Your task to perform on an android device: Open CNN.com Image 0: 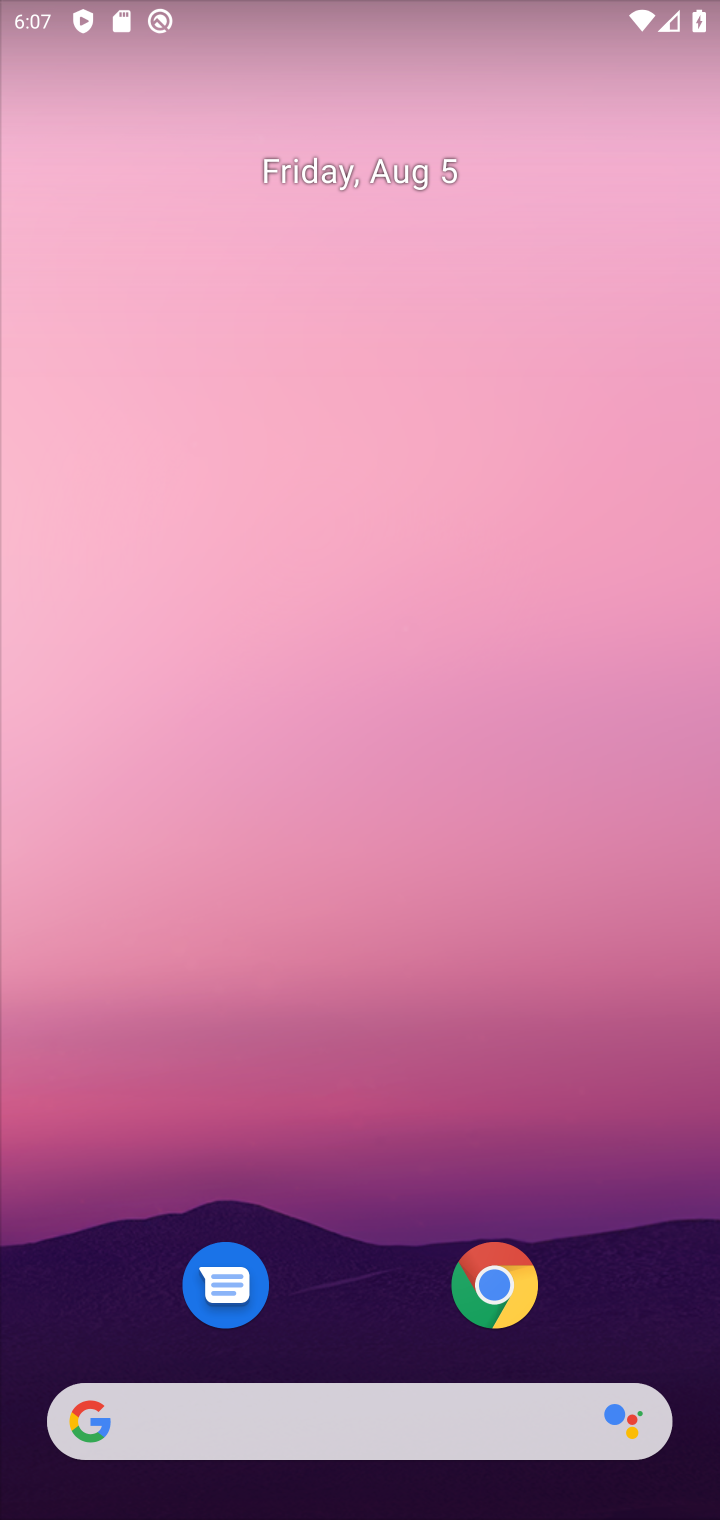
Step 0: click (485, 1288)
Your task to perform on an android device: Open CNN.com Image 1: 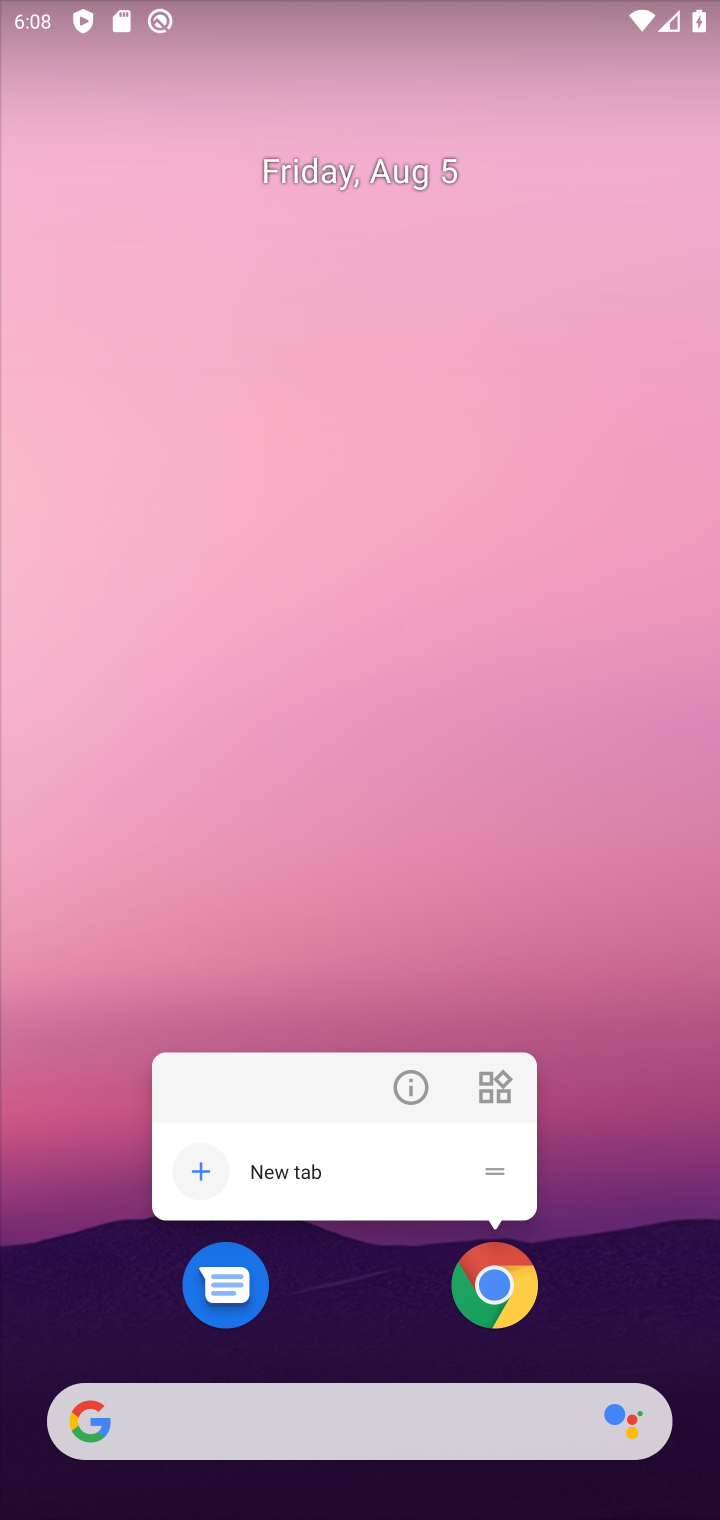
Step 1: click (481, 1293)
Your task to perform on an android device: Open CNN.com Image 2: 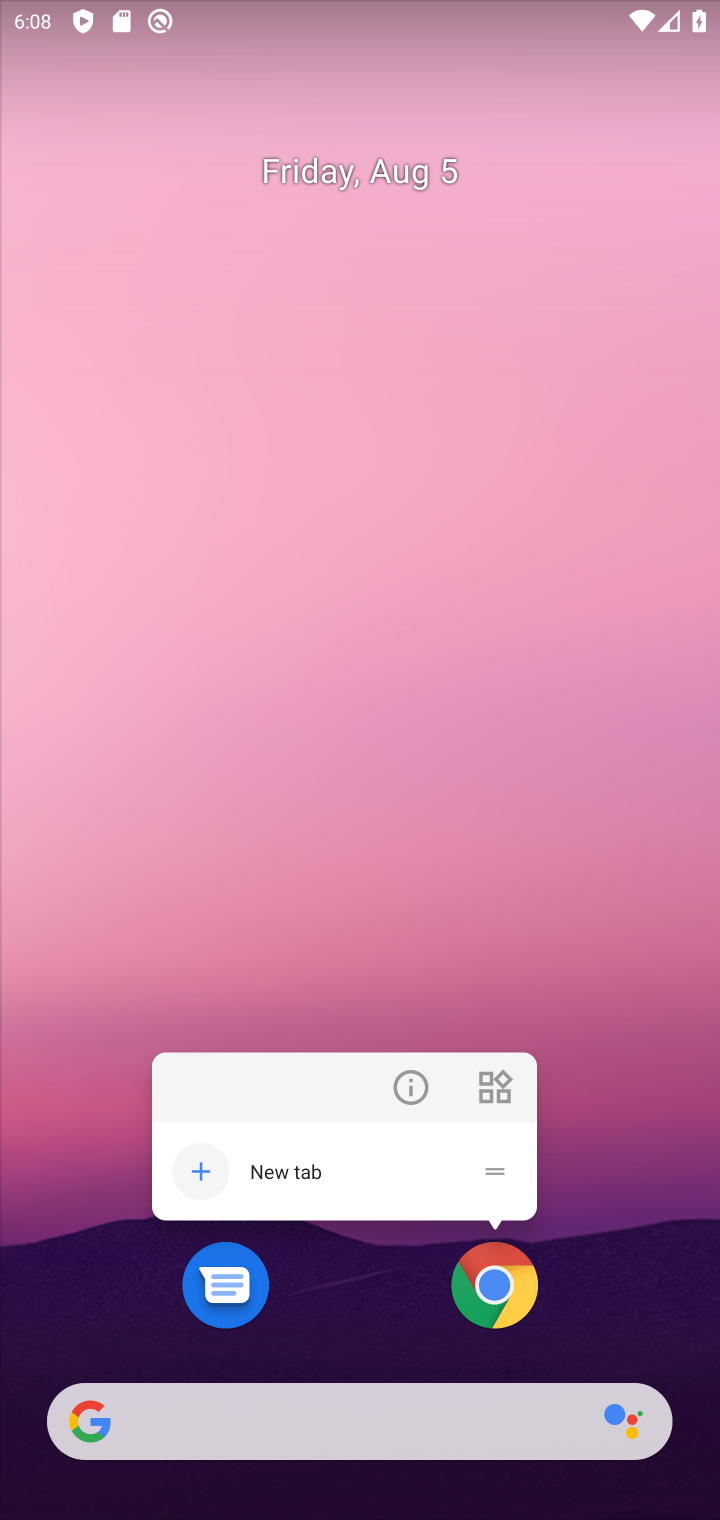
Step 2: click (481, 1293)
Your task to perform on an android device: Open CNN.com Image 3: 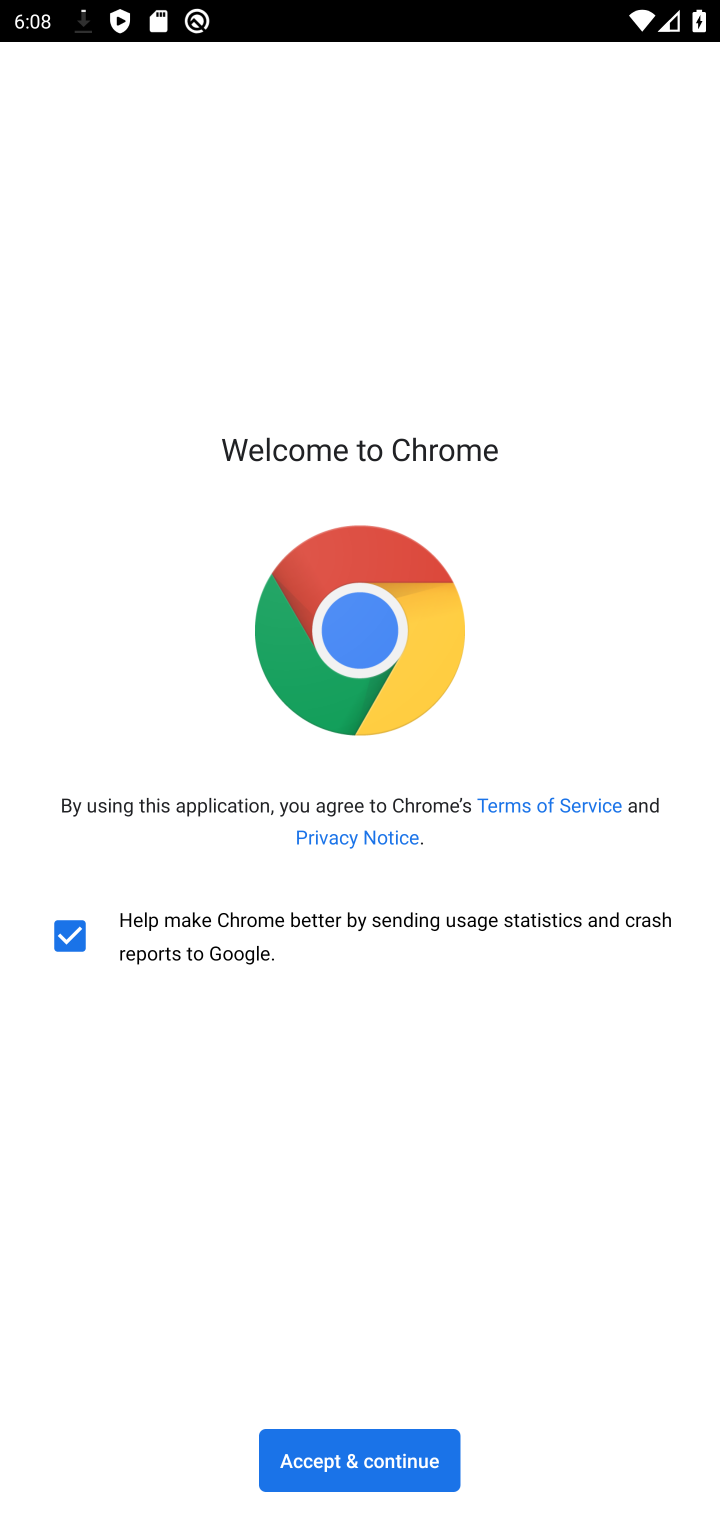
Step 3: click (367, 1463)
Your task to perform on an android device: Open CNN.com Image 4: 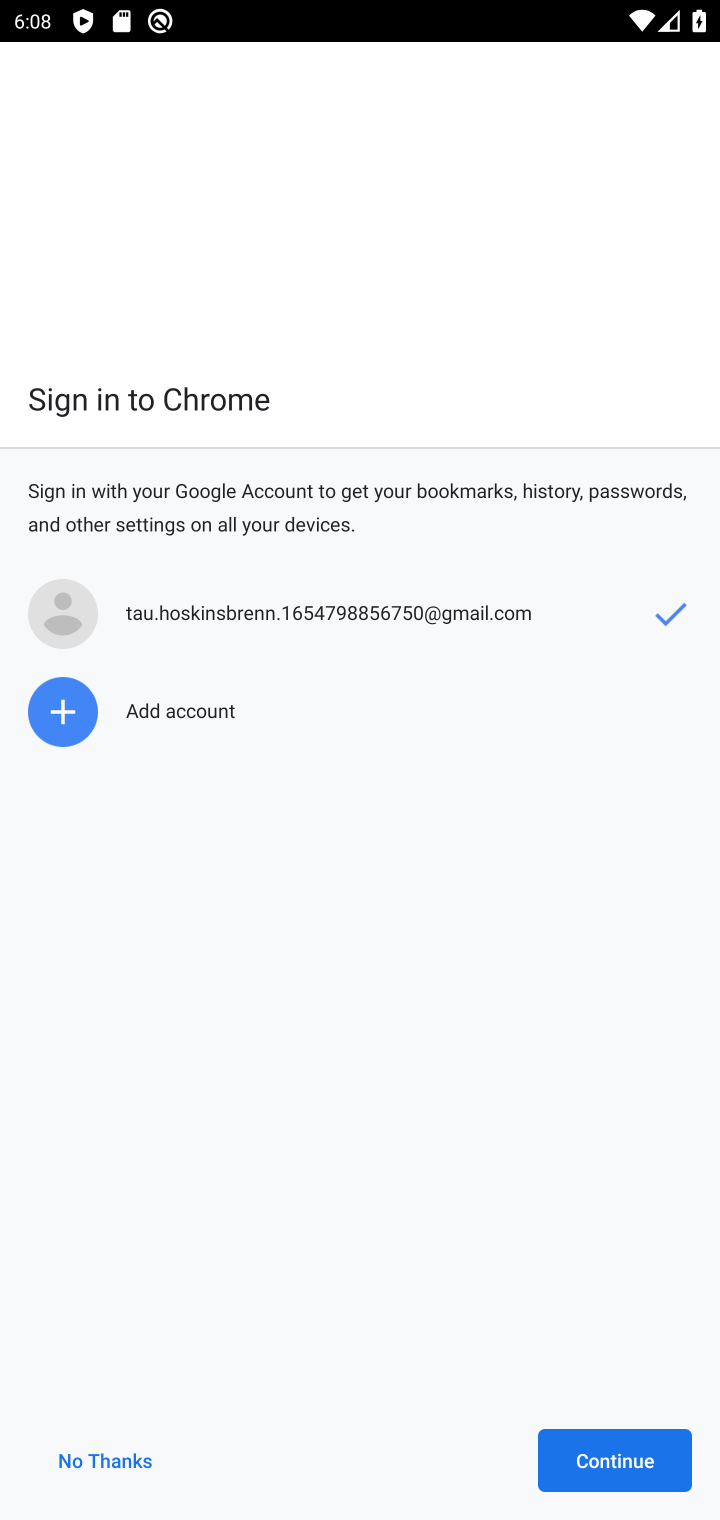
Step 4: click (605, 1470)
Your task to perform on an android device: Open CNN.com Image 5: 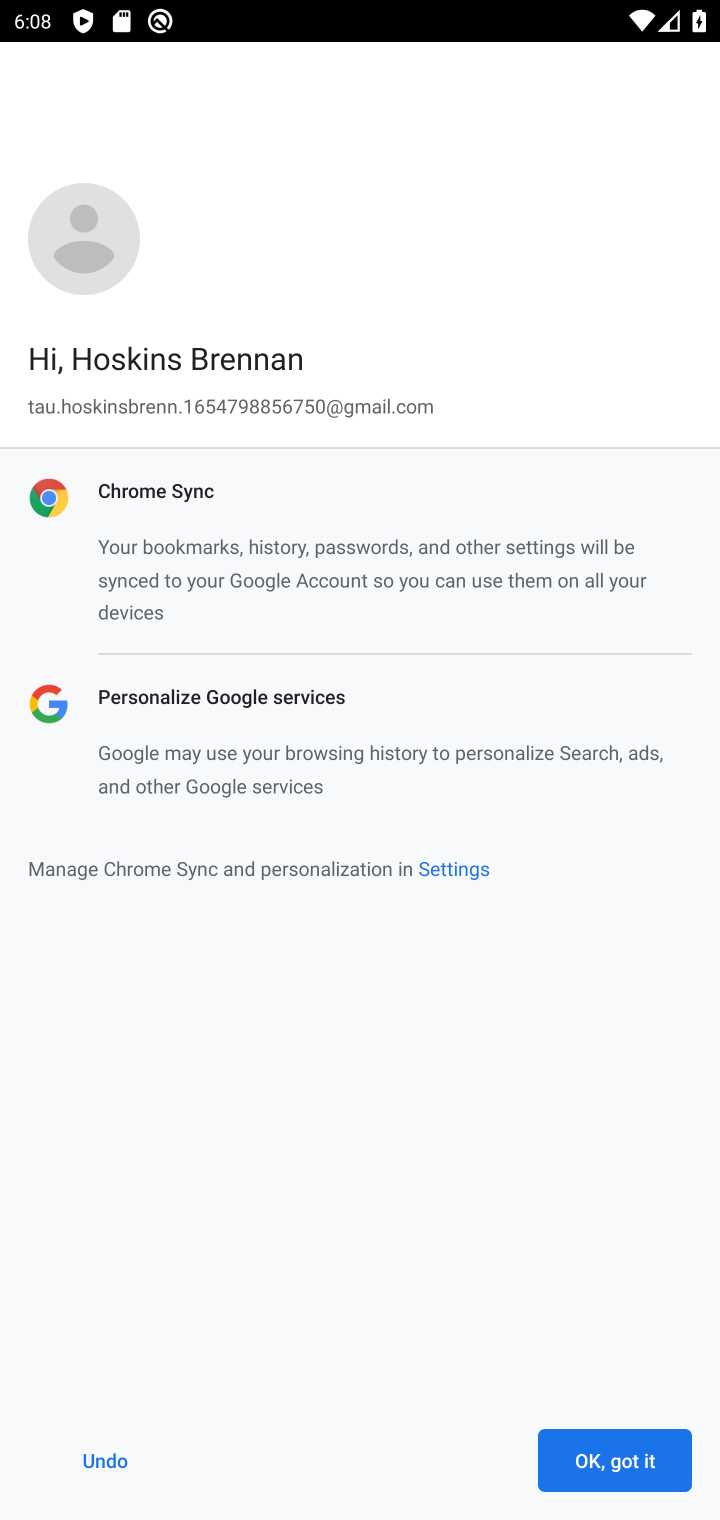
Step 5: click (605, 1470)
Your task to perform on an android device: Open CNN.com Image 6: 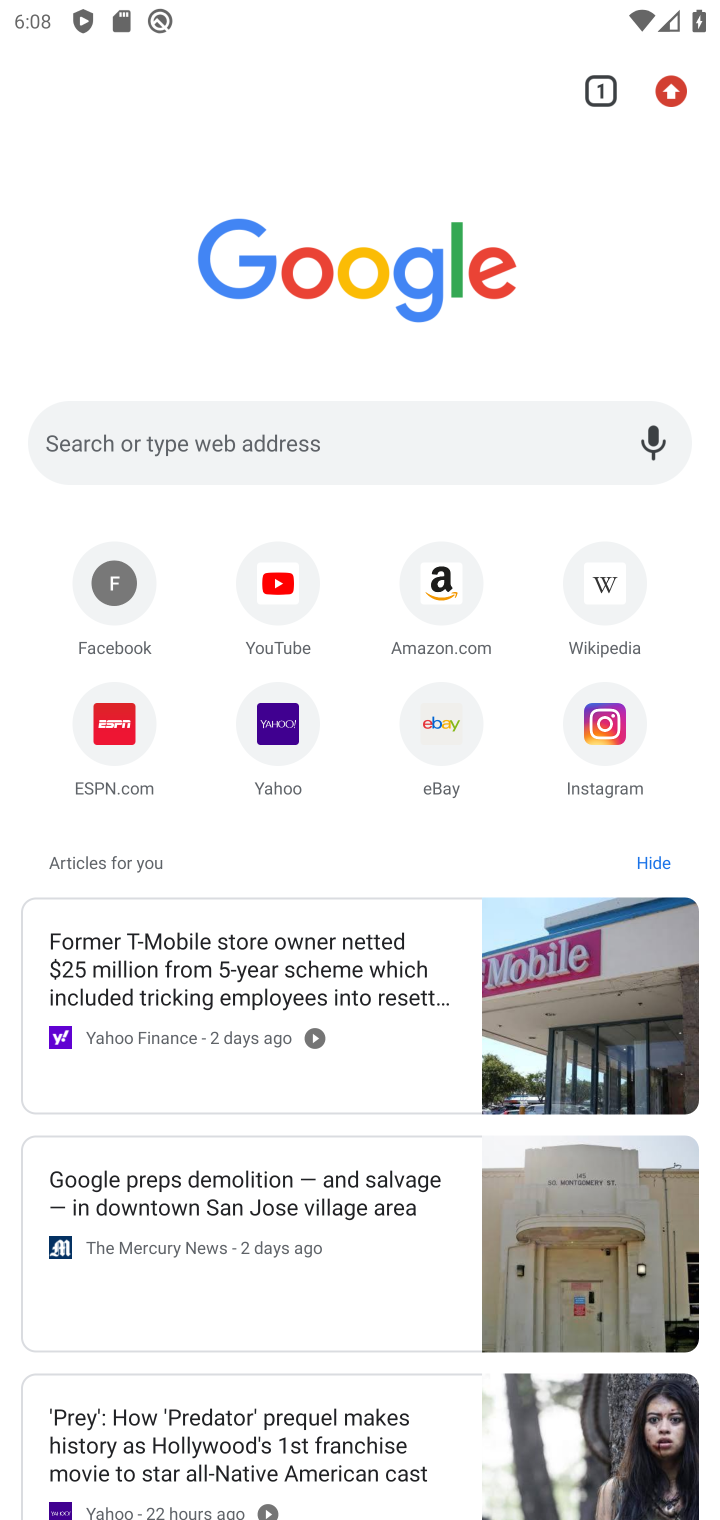
Step 6: click (315, 437)
Your task to perform on an android device: Open CNN.com Image 7: 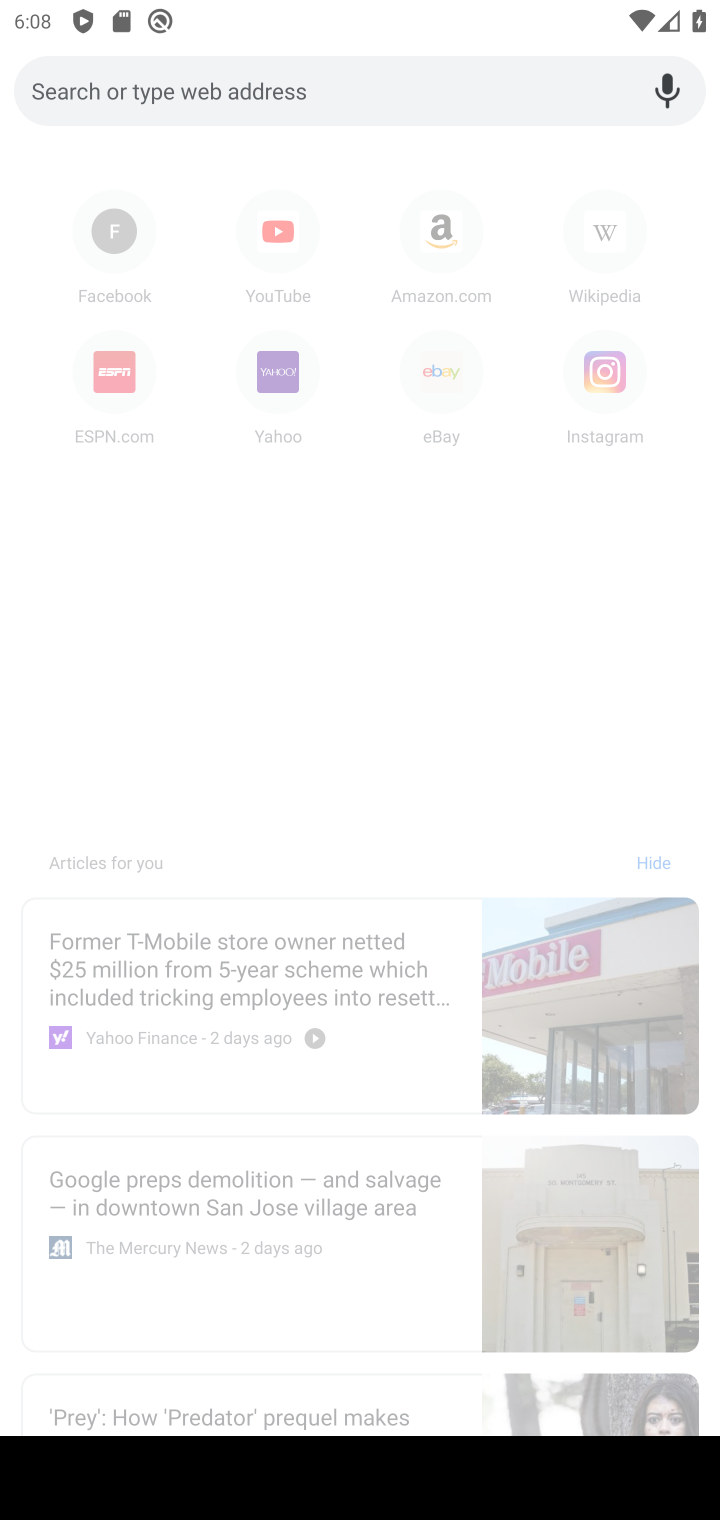
Step 7: type "CNN.com"
Your task to perform on an android device: Open CNN.com Image 8: 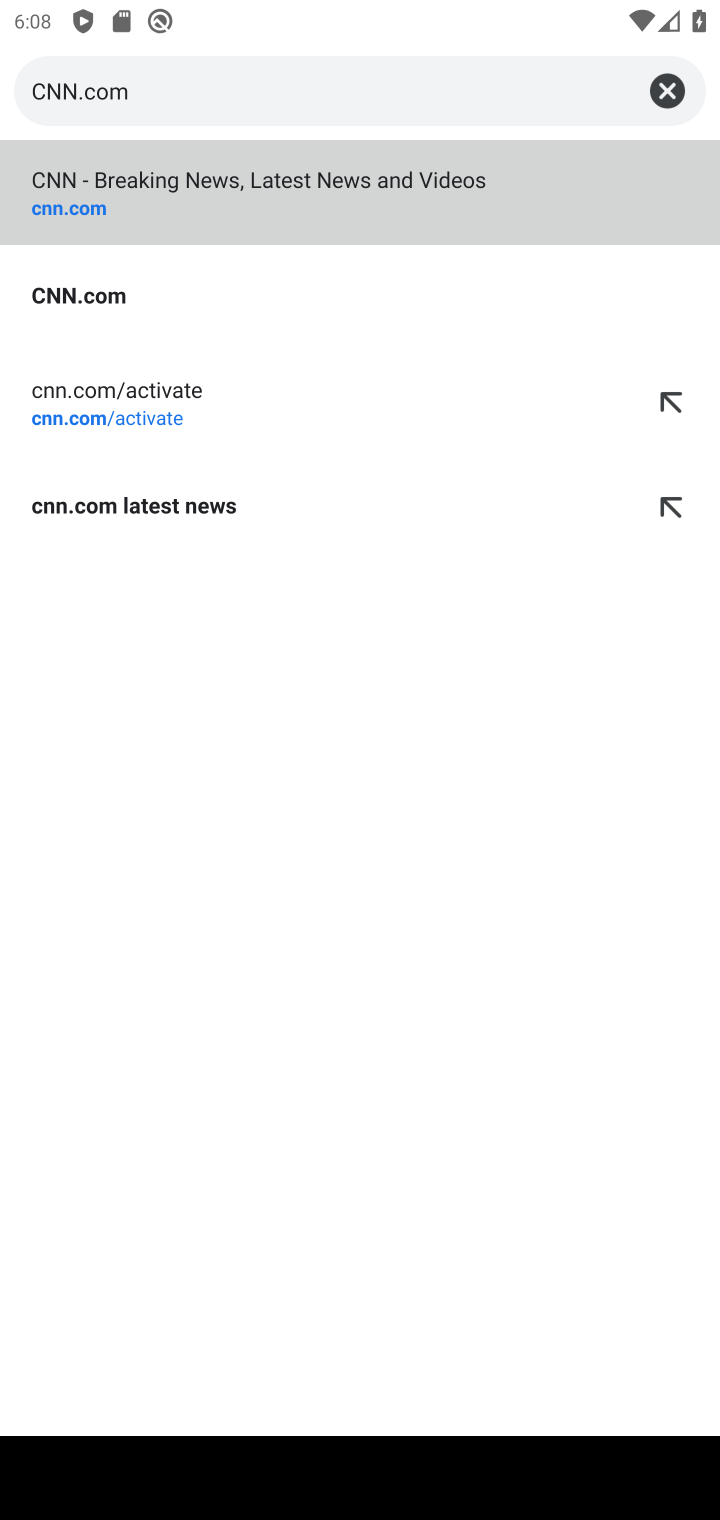
Step 8: click (413, 200)
Your task to perform on an android device: Open CNN.com Image 9: 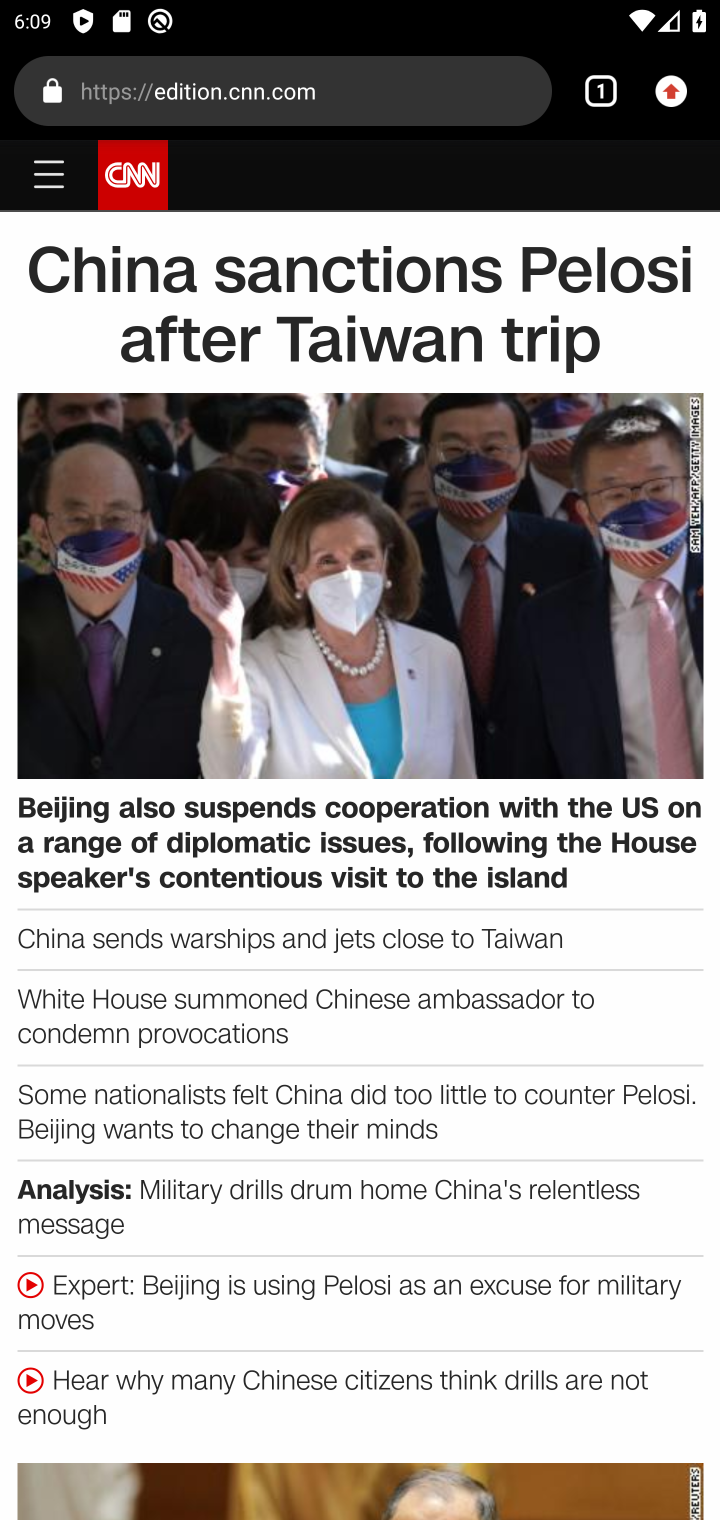
Step 9: task complete